Your task to perform on an android device: turn off priority inbox in the gmail app Image 0: 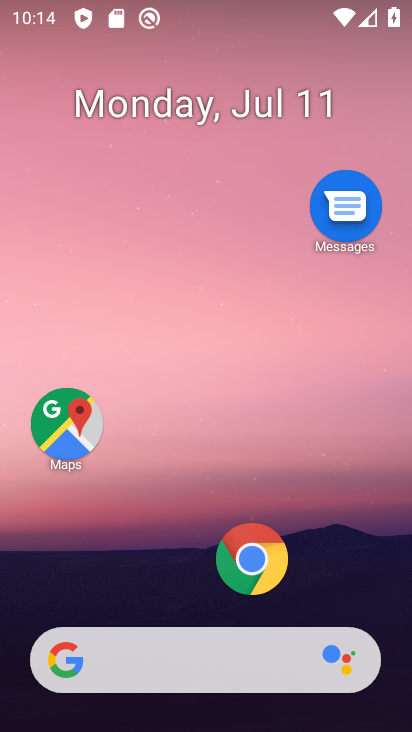
Step 0: drag from (357, 577) to (379, 127)
Your task to perform on an android device: turn off priority inbox in the gmail app Image 1: 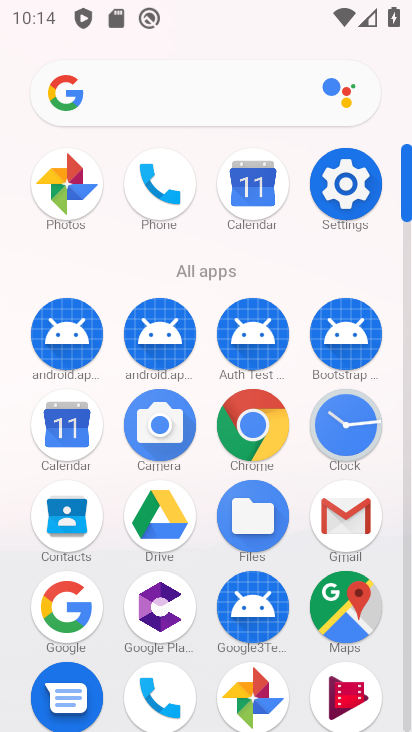
Step 1: click (347, 517)
Your task to perform on an android device: turn off priority inbox in the gmail app Image 2: 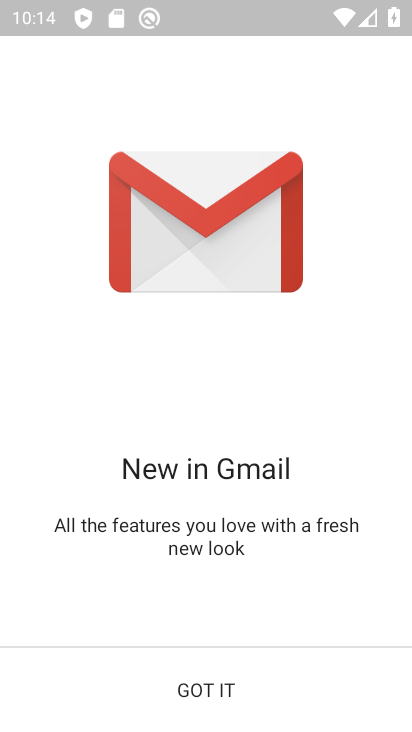
Step 2: click (263, 686)
Your task to perform on an android device: turn off priority inbox in the gmail app Image 3: 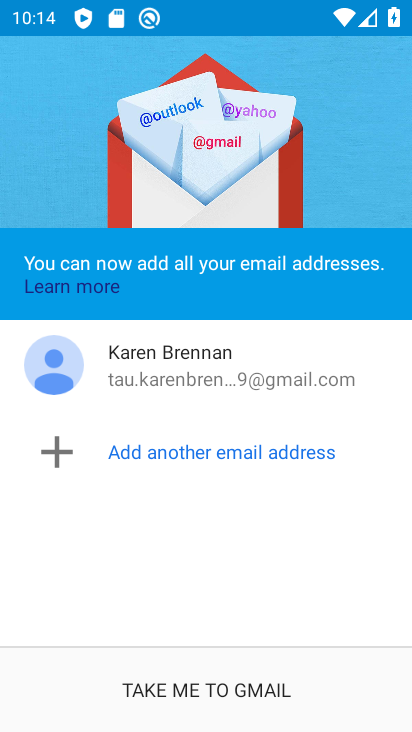
Step 3: click (263, 686)
Your task to perform on an android device: turn off priority inbox in the gmail app Image 4: 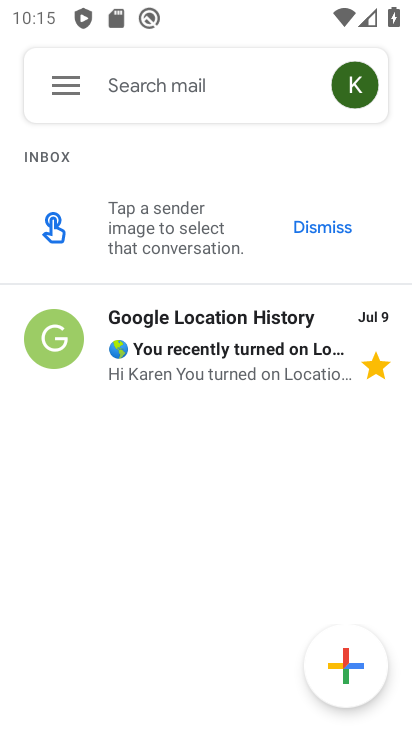
Step 4: click (71, 89)
Your task to perform on an android device: turn off priority inbox in the gmail app Image 5: 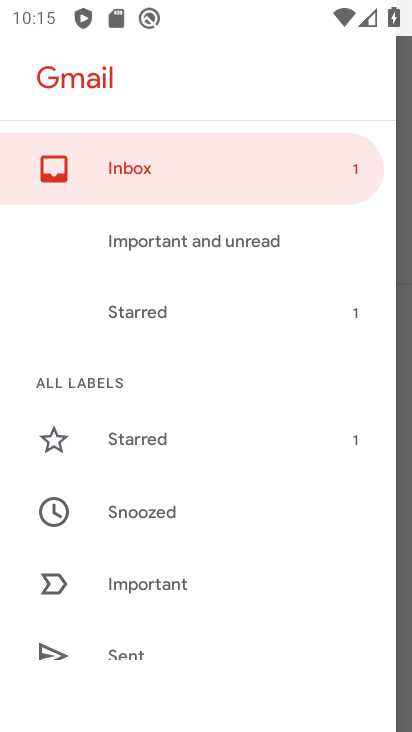
Step 5: drag from (258, 461) to (254, 356)
Your task to perform on an android device: turn off priority inbox in the gmail app Image 6: 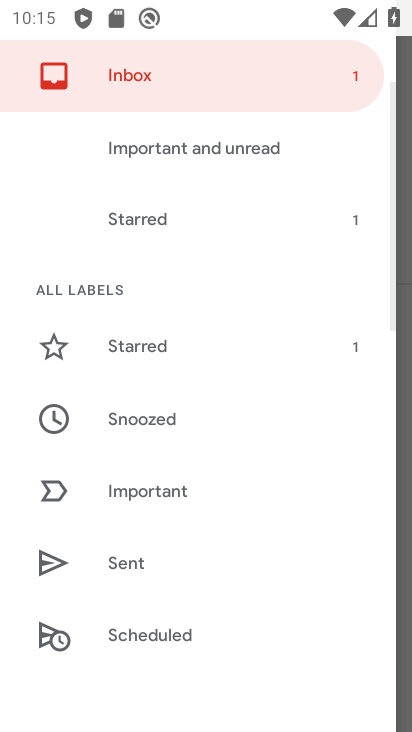
Step 6: drag from (271, 491) to (260, 372)
Your task to perform on an android device: turn off priority inbox in the gmail app Image 7: 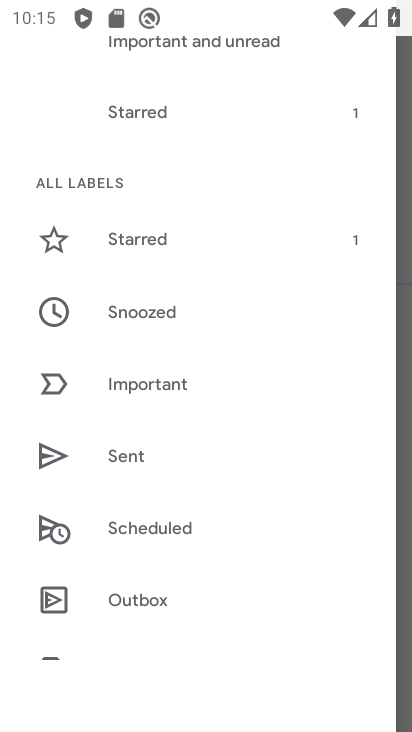
Step 7: drag from (263, 489) to (260, 373)
Your task to perform on an android device: turn off priority inbox in the gmail app Image 8: 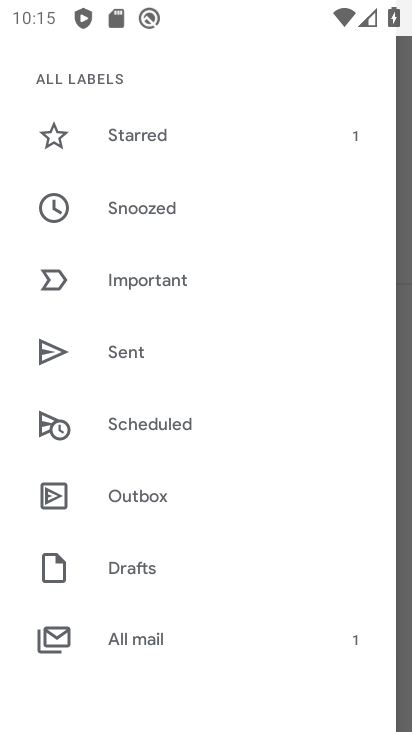
Step 8: drag from (255, 527) to (256, 411)
Your task to perform on an android device: turn off priority inbox in the gmail app Image 9: 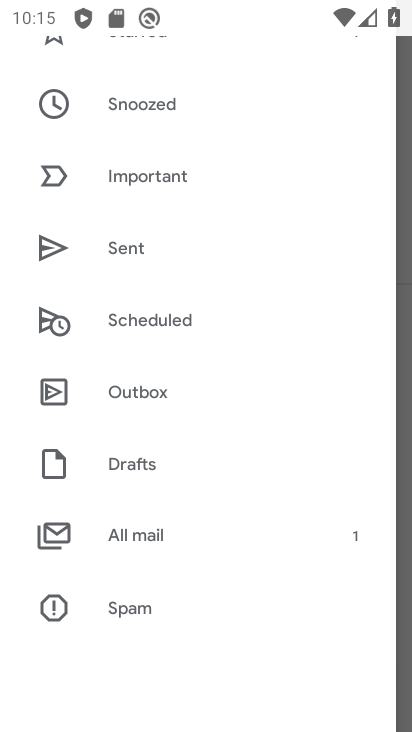
Step 9: drag from (249, 530) to (238, 432)
Your task to perform on an android device: turn off priority inbox in the gmail app Image 10: 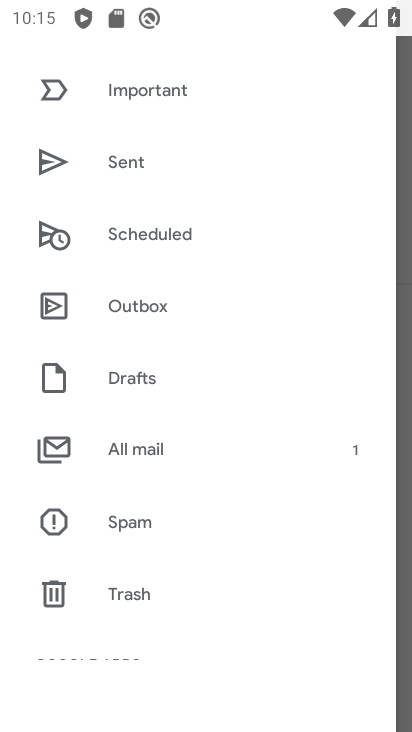
Step 10: drag from (239, 521) to (241, 425)
Your task to perform on an android device: turn off priority inbox in the gmail app Image 11: 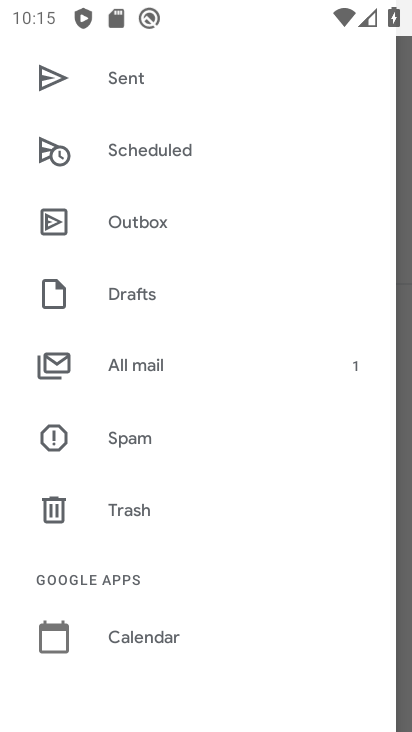
Step 11: drag from (256, 517) to (255, 439)
Your task to perform on an android device: turn off priority inbox in the gmail app Image 12: 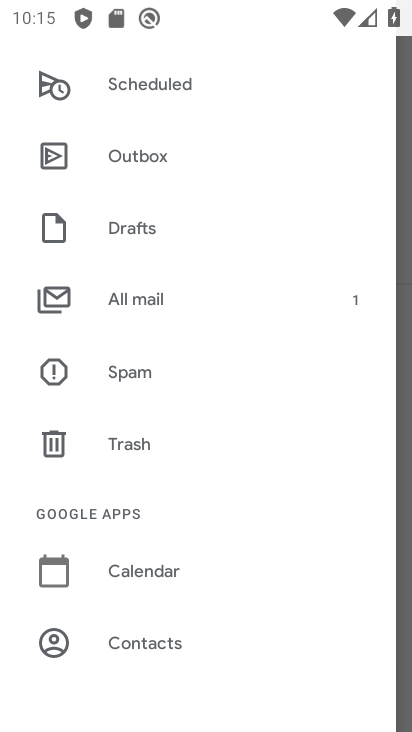
Step 12: drag from (266, 531) to (264, 390)
Your task to perform on an android device: turn off priority inbox in the gmail app Image 13: 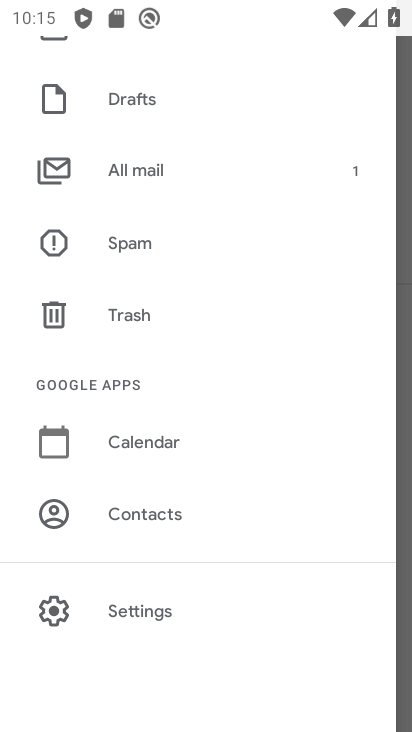
Step 13: drag from (261, 534) to (267, 347)
Your task to perform on an android device: turn off priority inbox in the gmail app Image 14: 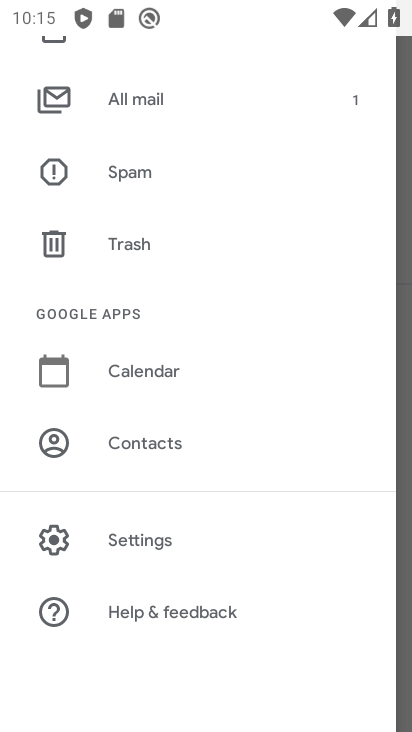
Step 14: click (172, 548)
Your task to perform on an android device: turn off priority inbox in the gmail app Image 15: 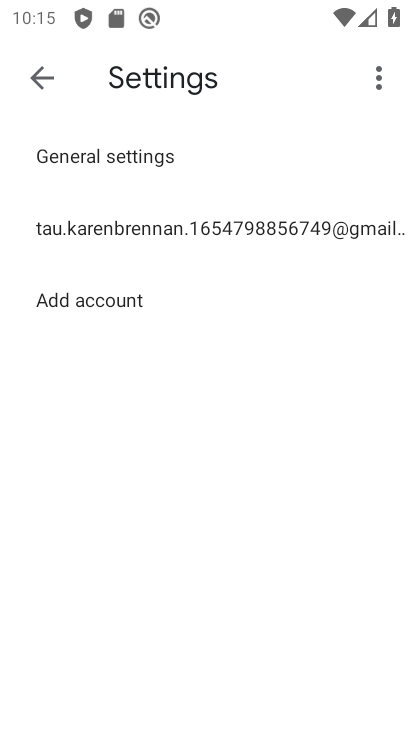
Step 15: click (253, 225)
Your task to perform on an android device: turn off priority inbox in the gmail app Image 16: 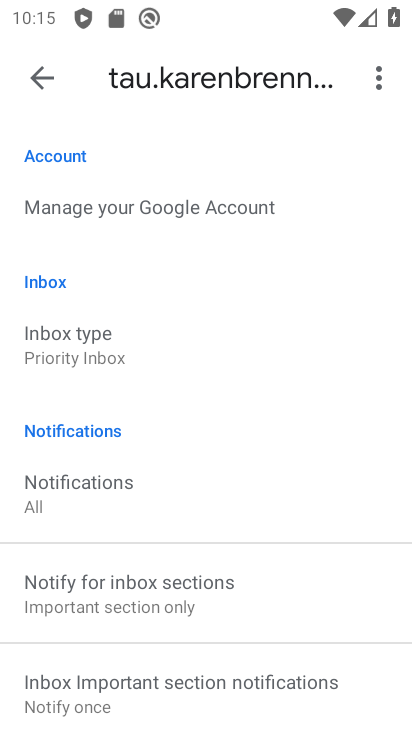
Step 16: click (125, 352)
Your task to perform on an android device: turn off priority inbox in the gmail app Image 17: 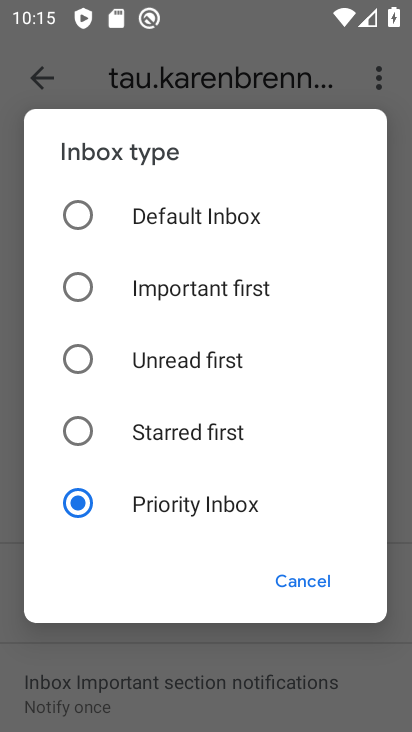
Step 17: click (191, 211)
Your task to perform on an android device: turn off priority inbox in the gmail app Image 18: 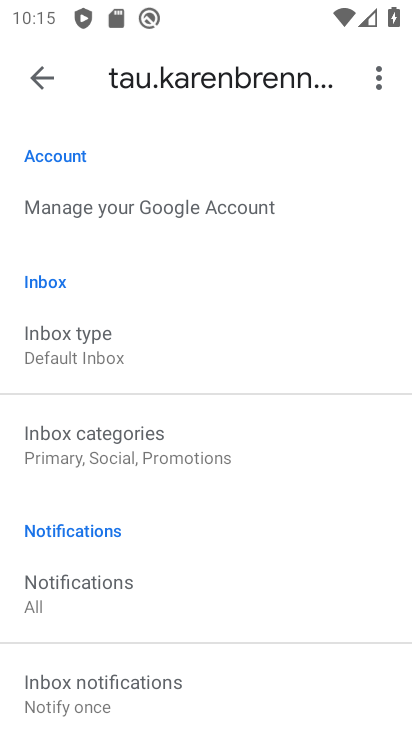
Step 18: task complete